Your task to perform on an android device: open app "Life360: Find Family & Friends" (install if not already installed) Image 0: 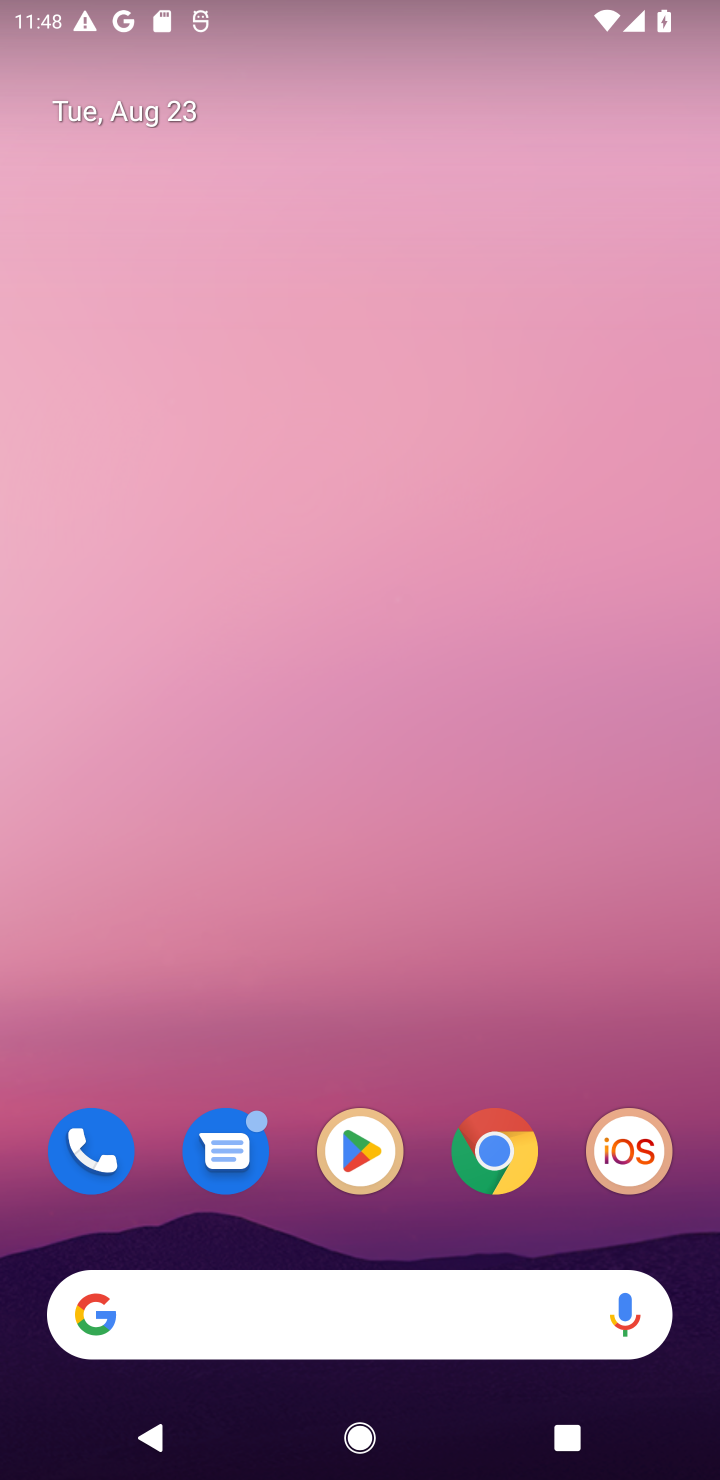
Step 0: click (355, 1140)
Your task to perform on an android device: open app "Life360: Find Family & Friends" (install if not already installed) Image 1: 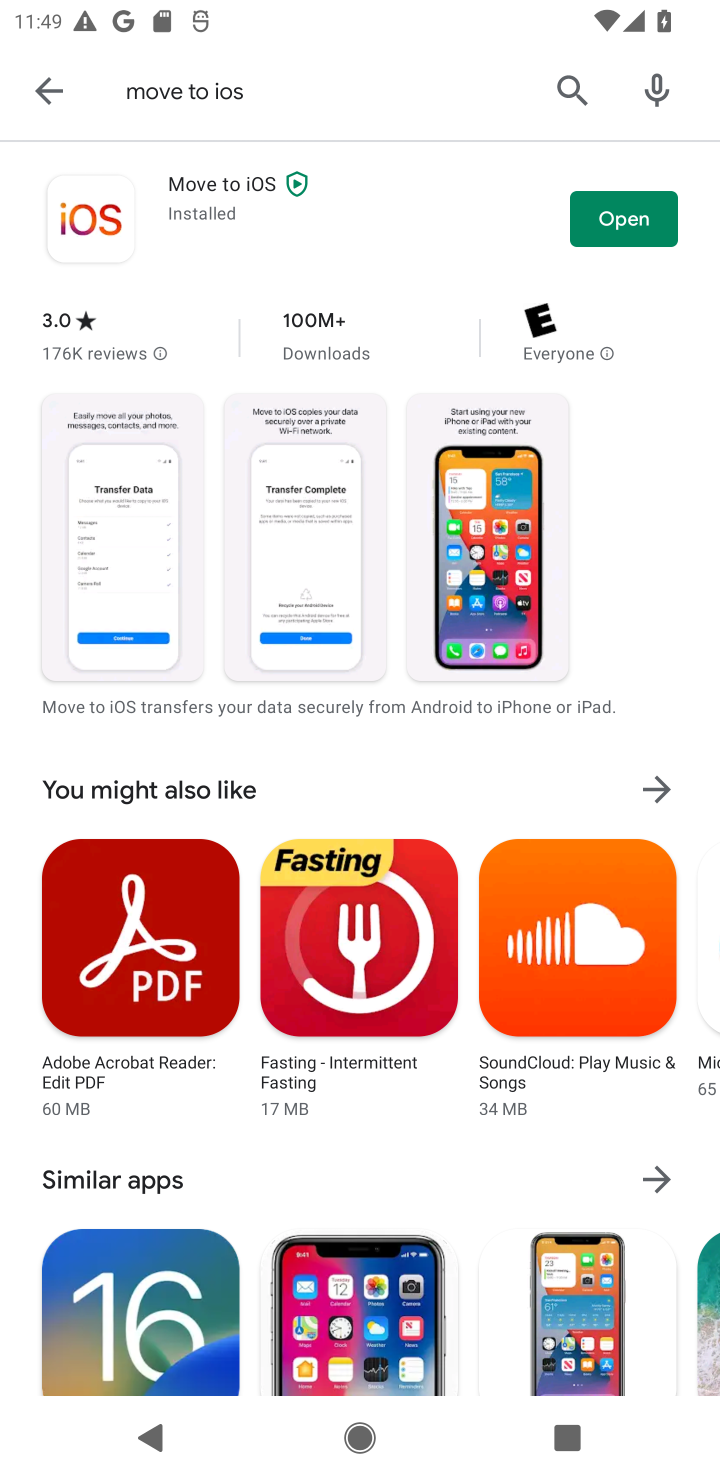
Step 1: click (566, 87)
Your task to perform on an android device: open app "Life360: Find Family & Friends" (install if not already installed) Image 2: 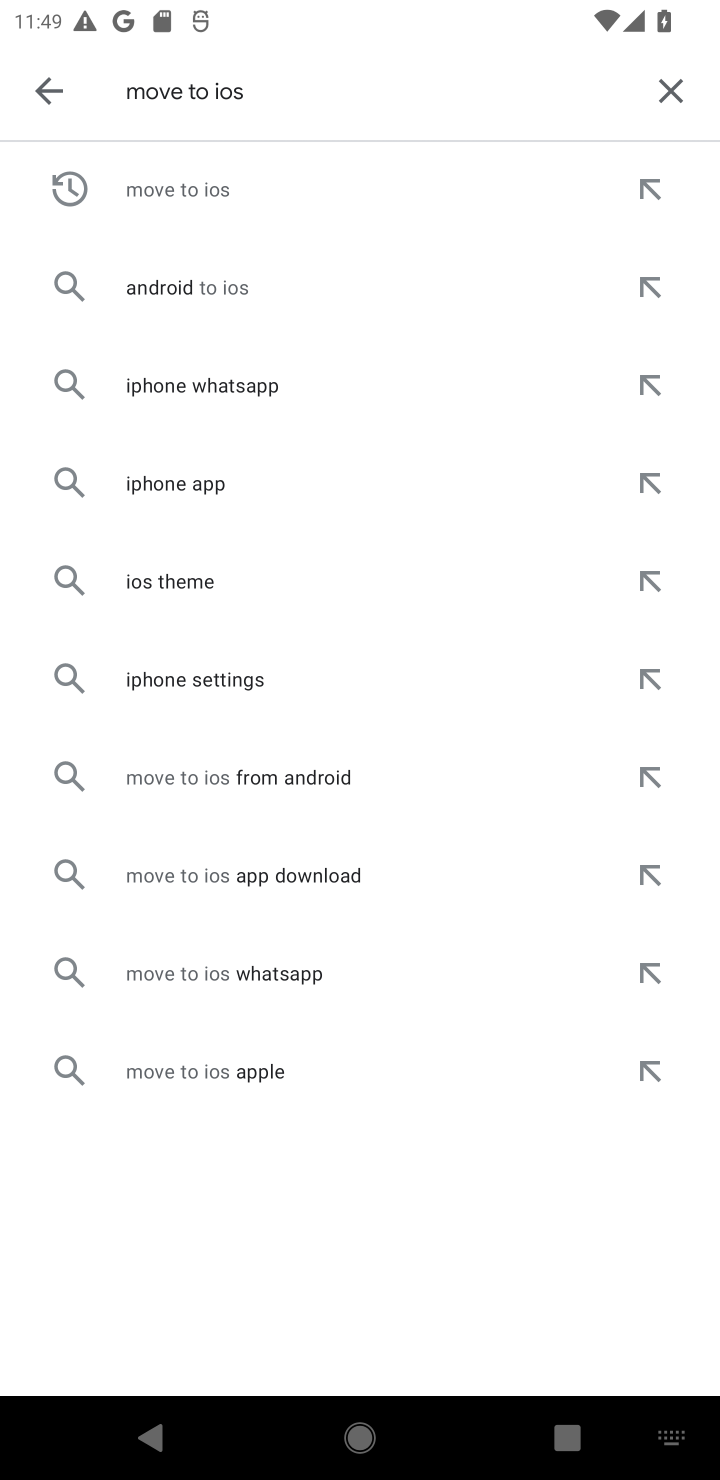
Step 2: click (666, 98)
Your task to perform on an android device: open app "Life360: Find Family & Friends" (install if not already installed) Image 3: 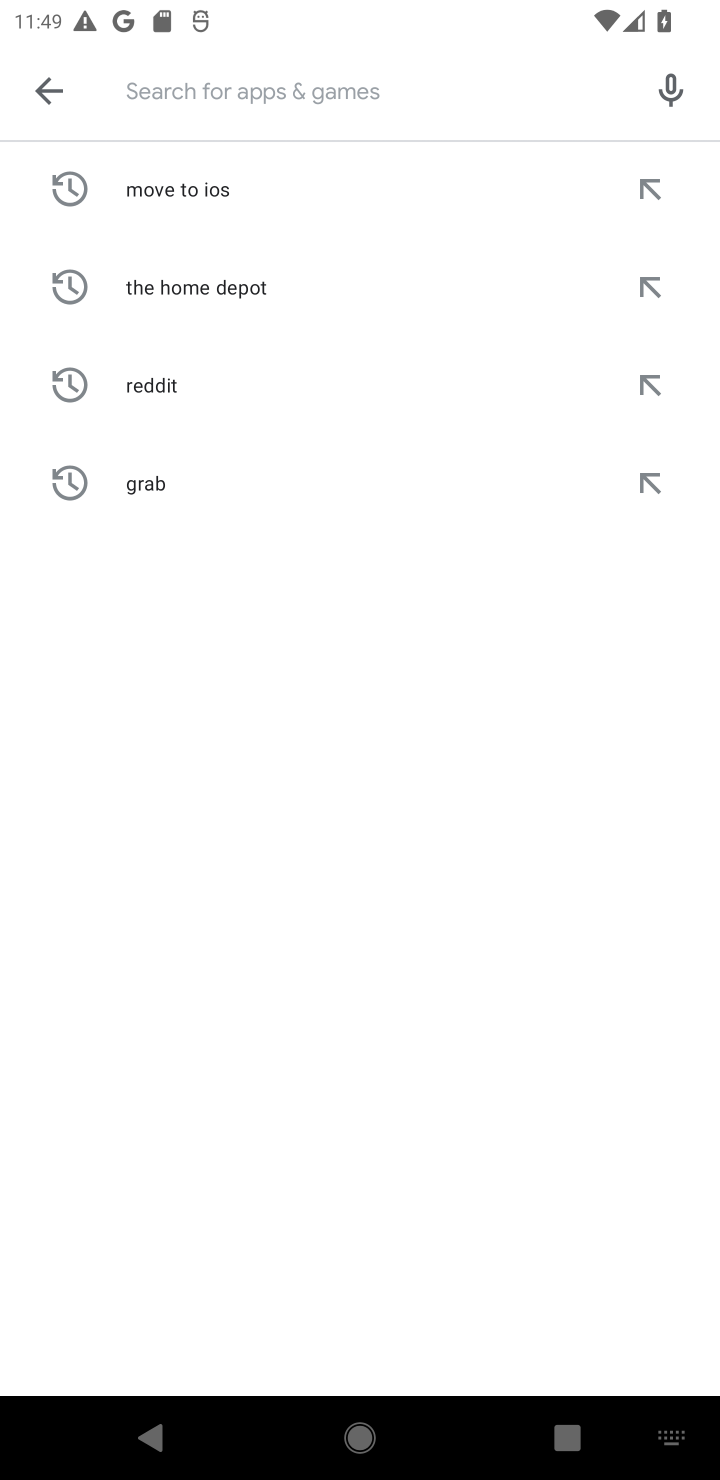
Step 3: type "Life360: Find Family & Friends"
Your task to perform on an android device: open app "Life360: Find Family & Friends" (install if not already installed) Image 4: 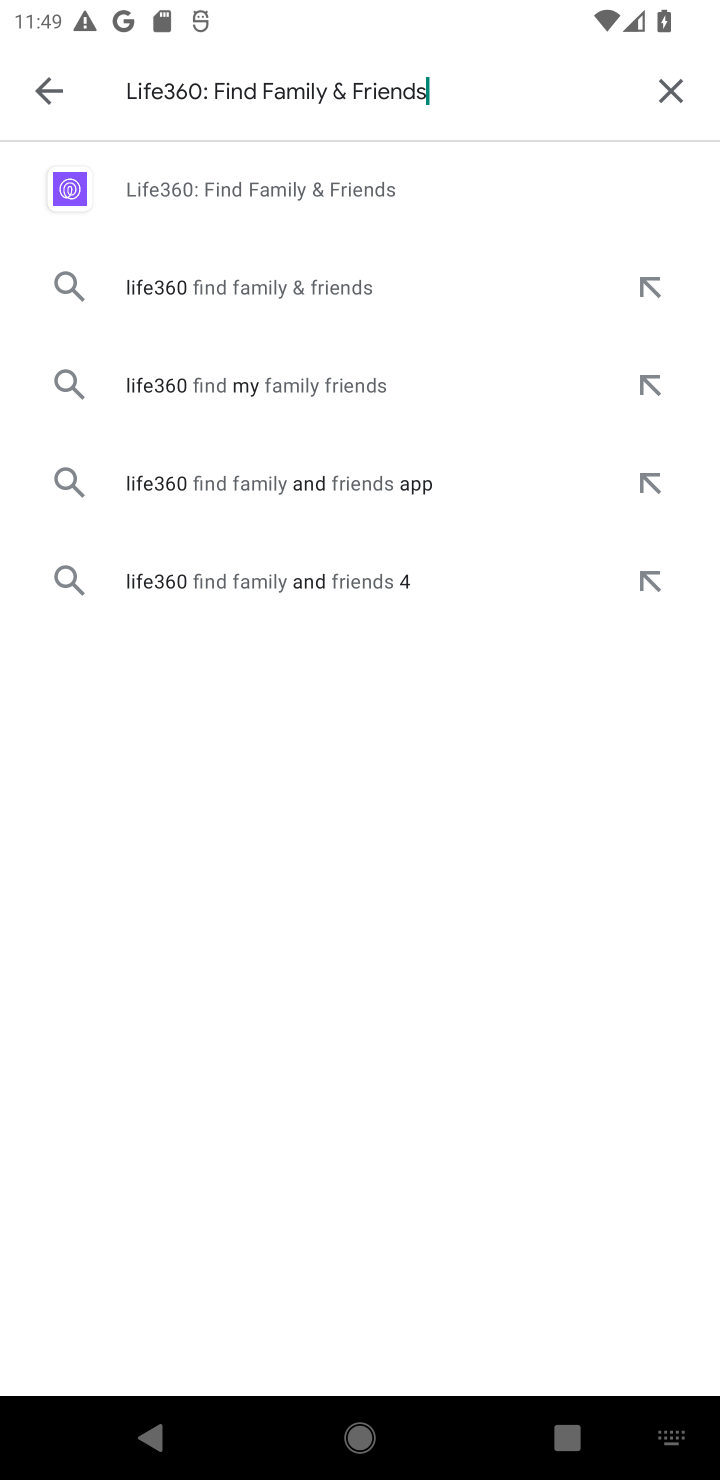
Step 4: click (362, 193)
Your task to perform on an android device: open app "Life360: Find Family & Friends" (install if not already installed) Image 5: 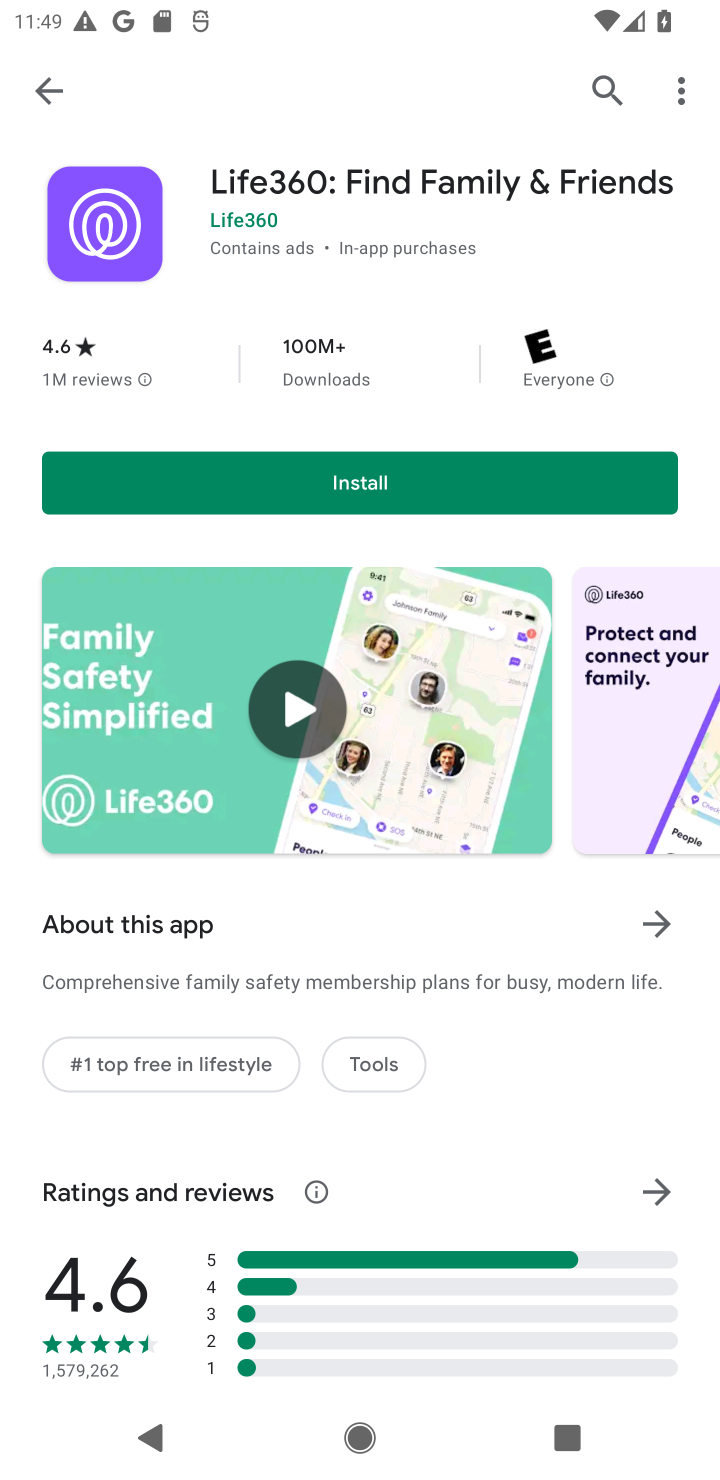
Step 5: click (394, 452)
Your task to perform on an android device: open app "Life360: Find Family & Friends" (install if not already installed) Image 6: 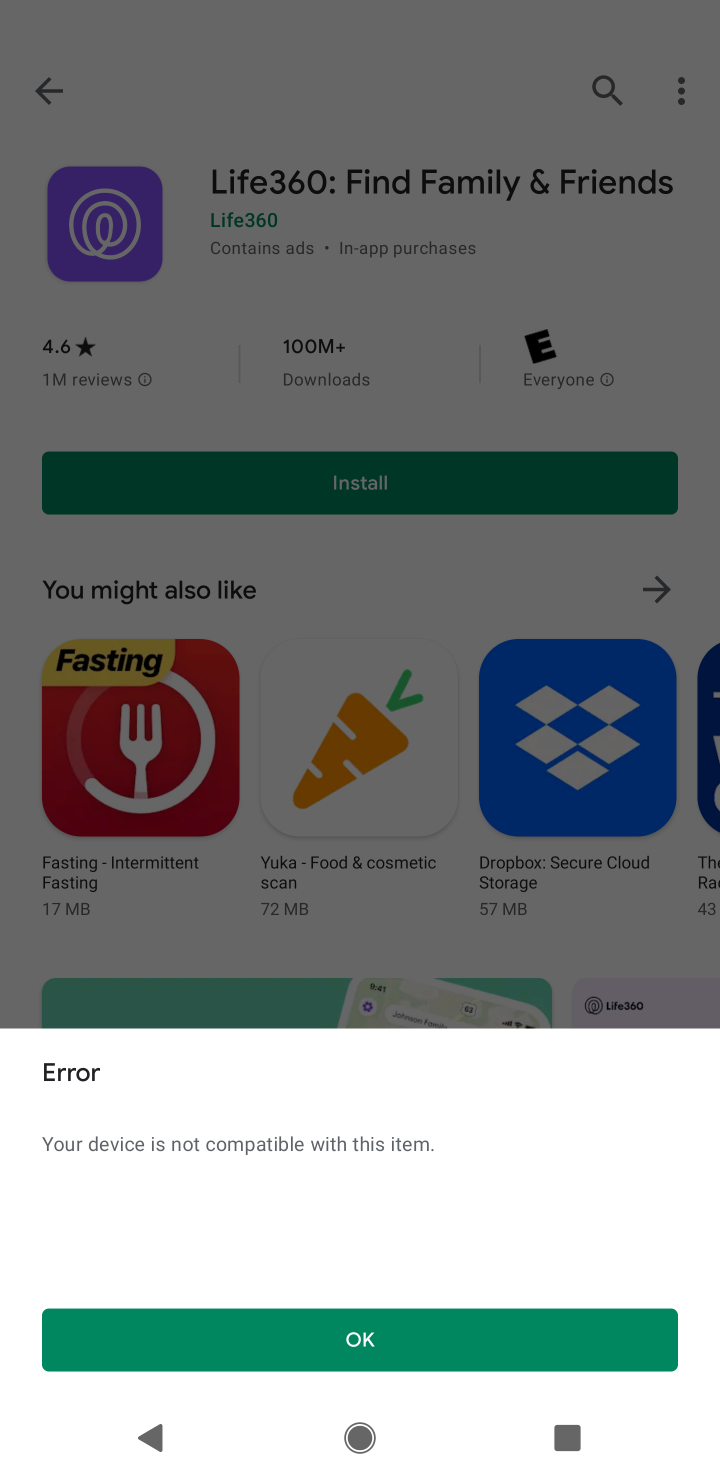
Step 6: task complete